Your task to perform on an android device: Open Google Image 0: 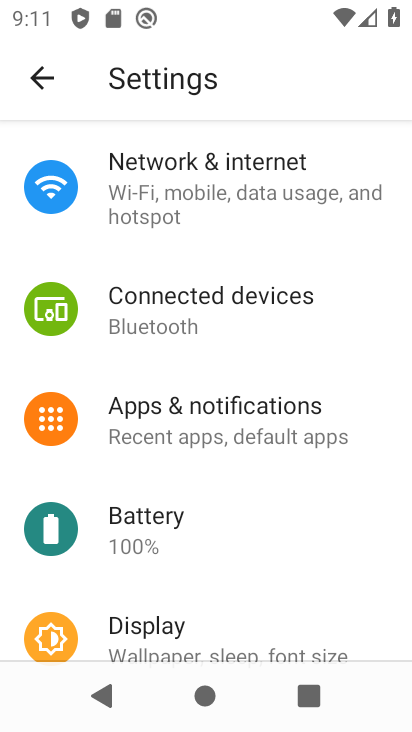
Step 0: press home button
Your task to perform on an android device: Open Google Image 1: 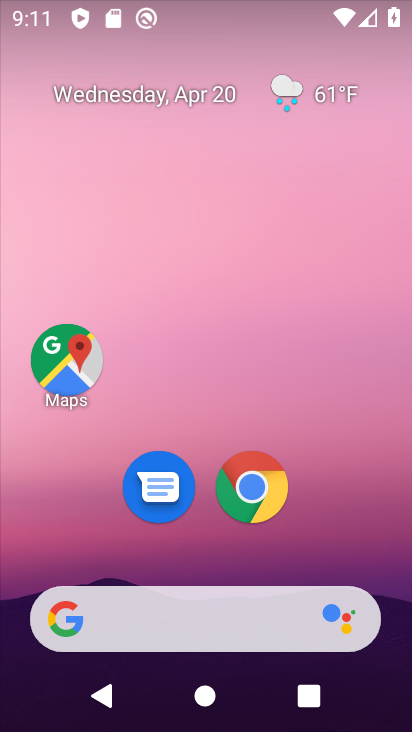
Step 1: drag from (327, 542) to (352, 87)
Your task to perform on an android device: Open Google Image 2: 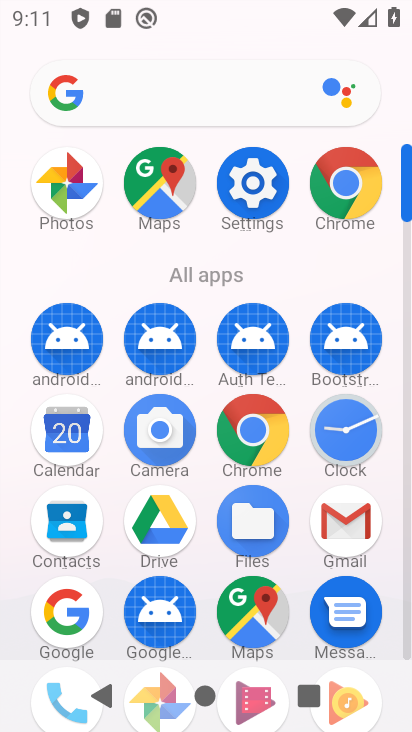
Step 2: click (64, 617)
Your task to perform on an android device: Open Google Image 3: 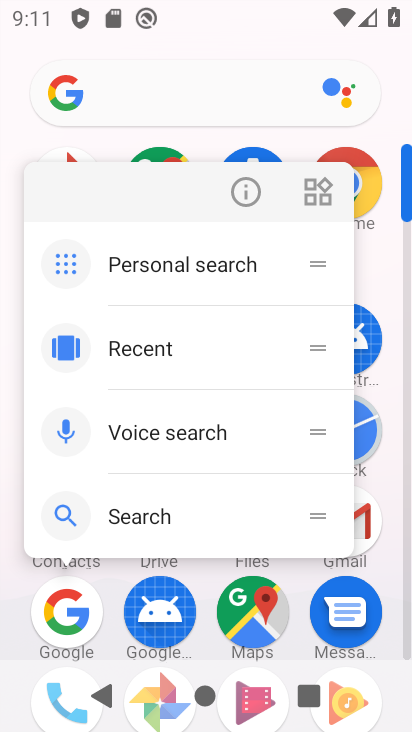
Step 3: click (64, 617)
Your task to perform on an android device: Open Google Image 4: 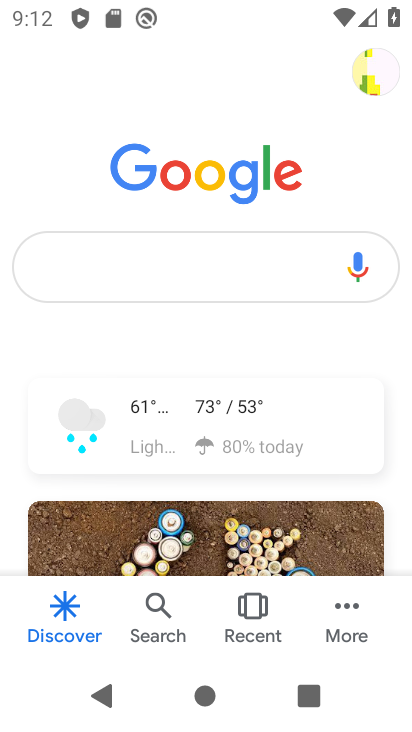
Step 4: task complete